Your task to perform on an android device: Show me recent news Image 0: 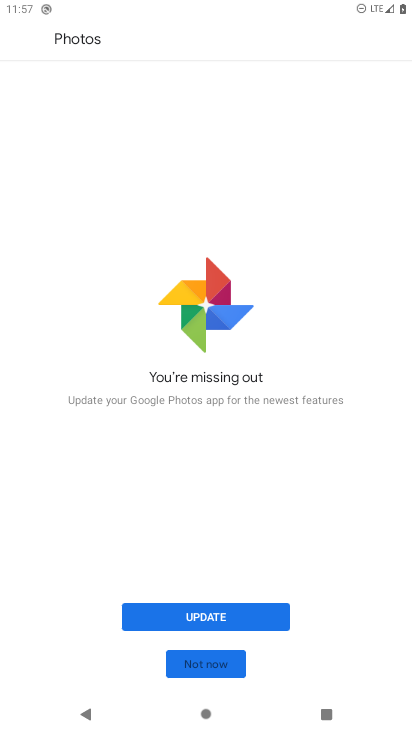
Step 0: press home button
Your task to perform on an android device: Show me recent news Image 1: 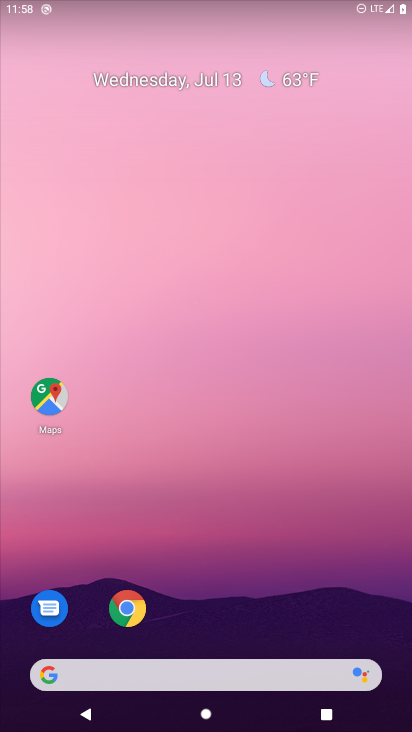
Step 1: drag from (230, 616) to (188, 89)
Your task to perform on an android device: Show me recent news Image 2: 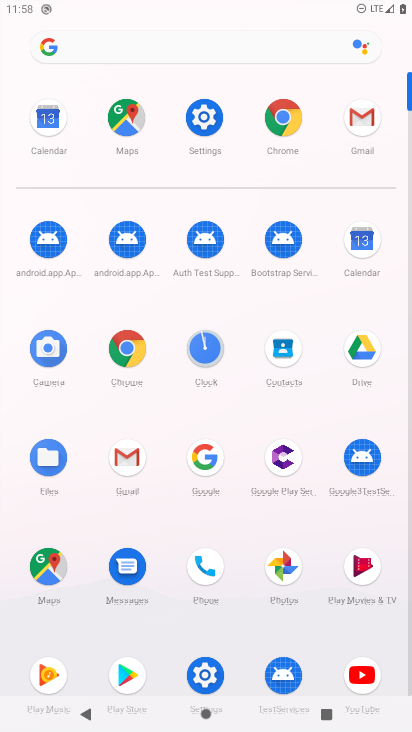
Step 2: click (281, 133)
Your task to perform on an android device: Show me recent news Image 3: 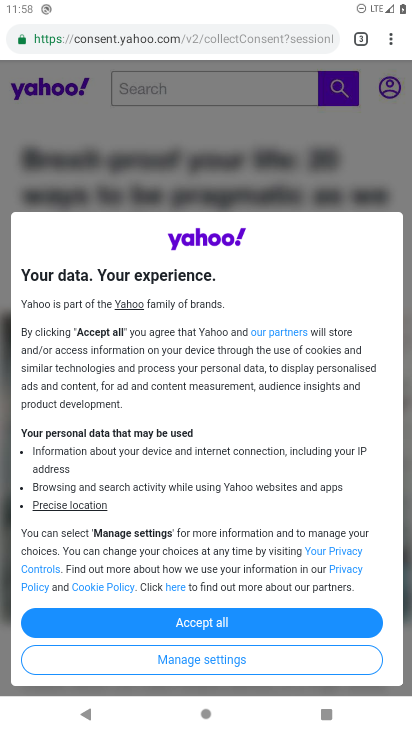
Step 3: click (296, 38)
Your task to perform on an android device: Show me recent news Image 4: 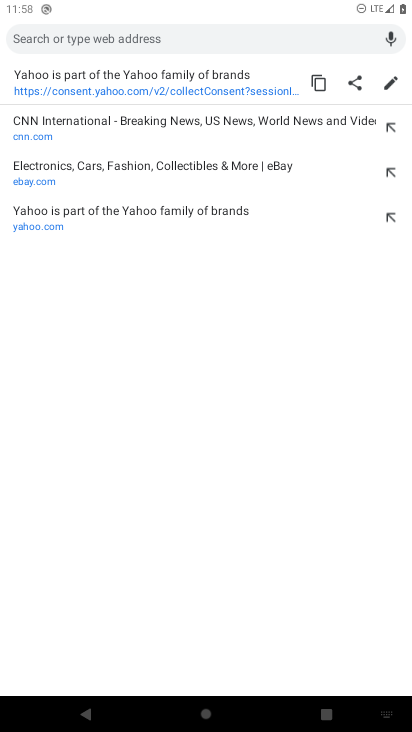
Step 4: type "Show me recent news"
Your task to perform on an android device: Show me recent news Image 5: 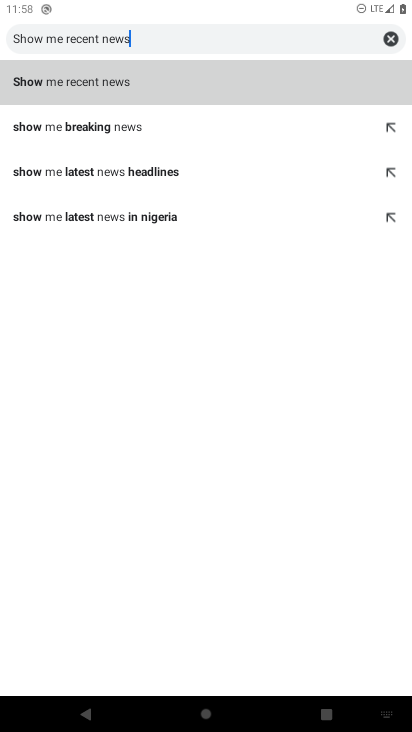
Step 5: type ""
Your task to perform on an android device: Show me recent news Image 6: 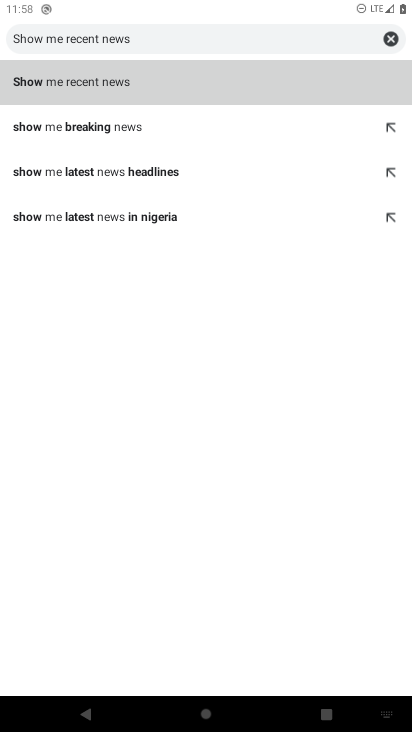
Step 6: click (64, 74)
Your task to perform on an android device: Show me recent news Image 7: 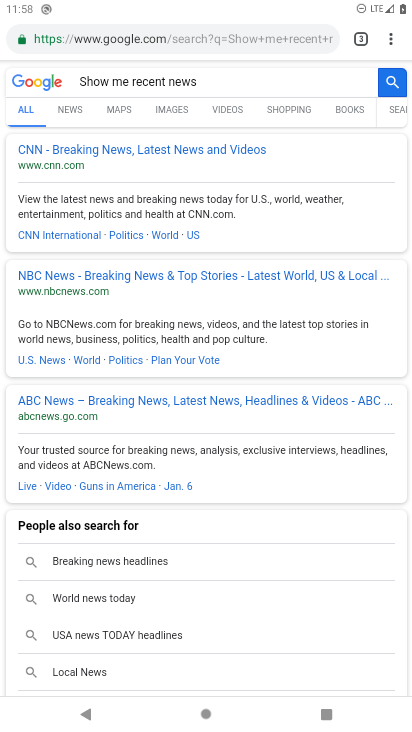
Step 7: task complete